Your task to perform on an android device: set the stopwatch Image 0: 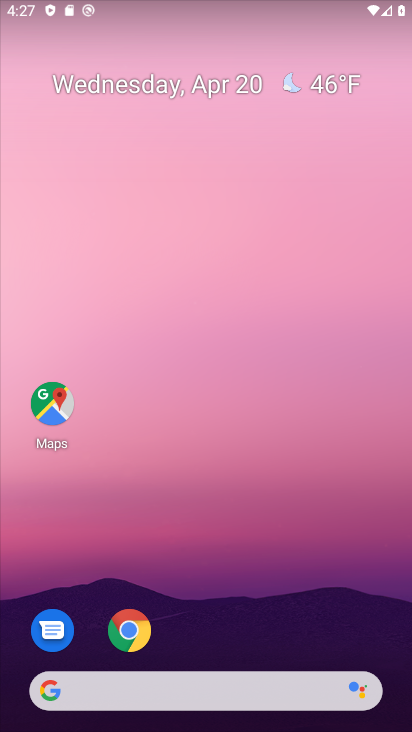
Step 0: drag from (217, 670) to (353, 166)
Your task to perform on an android device: set the stopwatch Image 1: 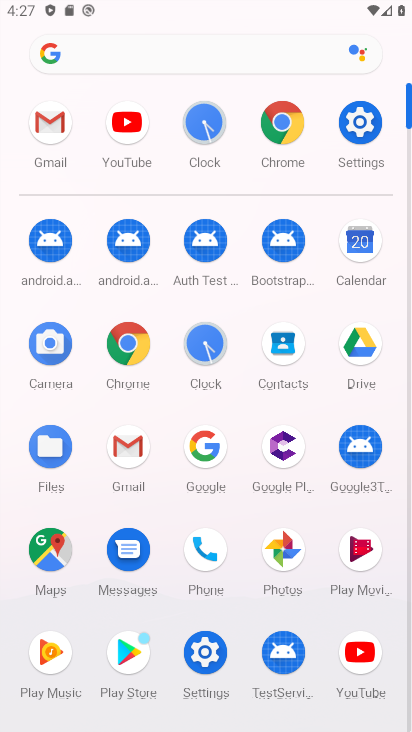
Step 1: click (208, 125)
Your task to perform on an android device: set the stopwatch Image 2: 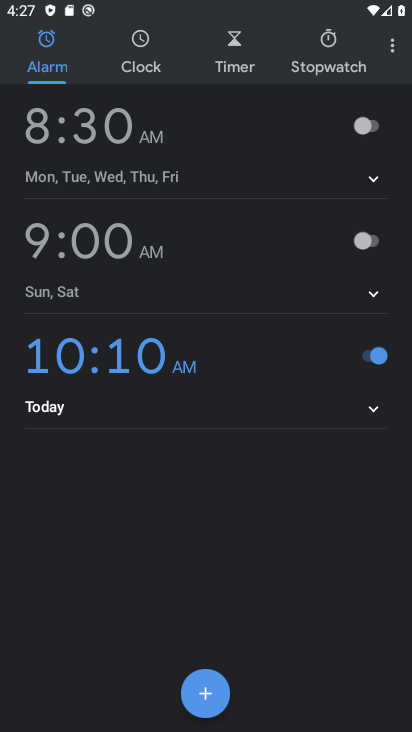
Step 2: click (325, 31)
Your task to perform on an android device: set the stopwatch Image 3: 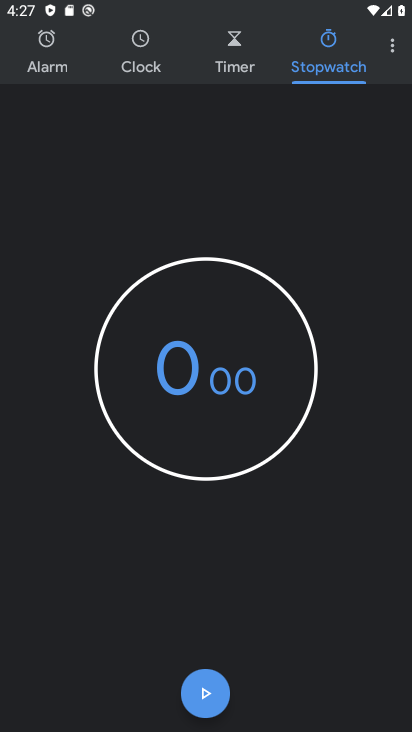
Step 3: click (212, 384)
Your task to perform on an android device: set the stopwatch Image 4: 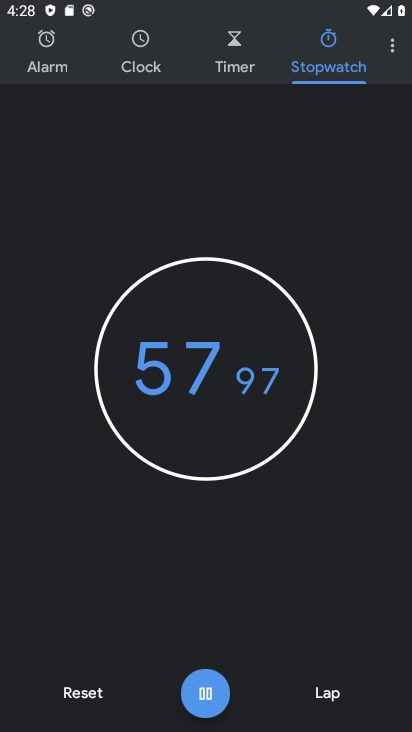
Step 4: click (68, 694)
Your task to perform on an android device: set the stopwatch Image 5: 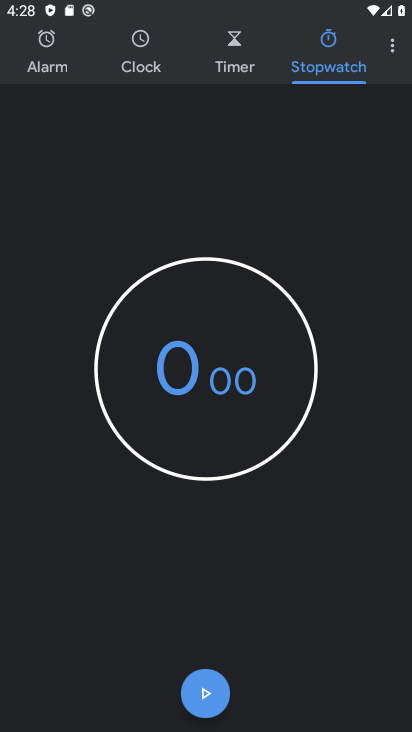
Step 5: click (203, 697)
Your task to perform on an android device: set the stopwatch Image 6: 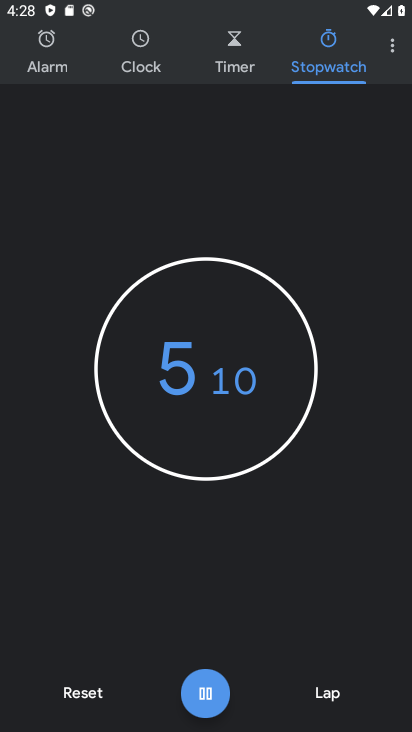
Step 6: click (205, 695)
Your task to perform on an android device: set the stopwatch Image 7: 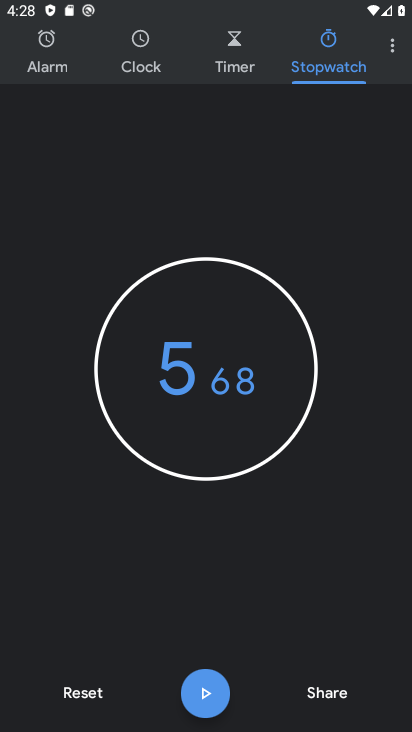
Step 7: task complete